Your task to perform on an android device: Open Chrome and go to settings Image 0: 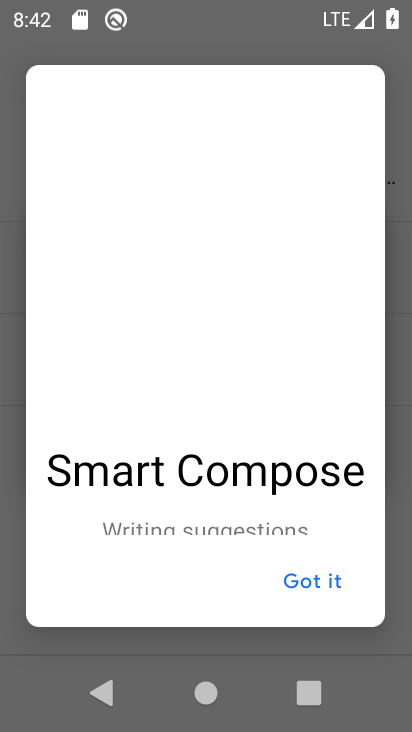
Step 0: press home button
Your task to perform on an android device: Open Chrome and go to settings Image 1: 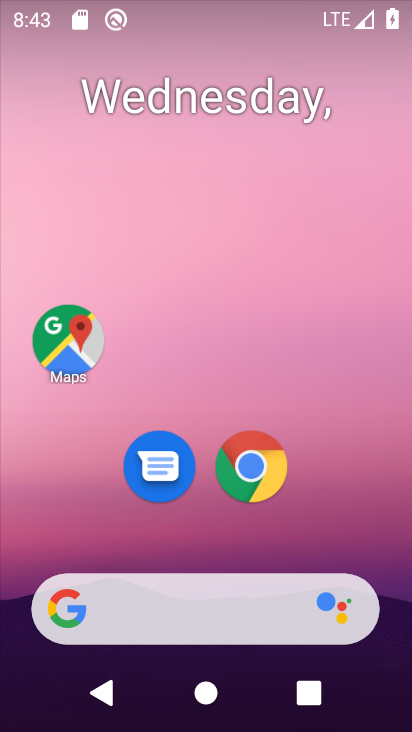
Step 1: click (249, 460)
Your task to perform on an android device: Open Chrome and go to settings Image 2: 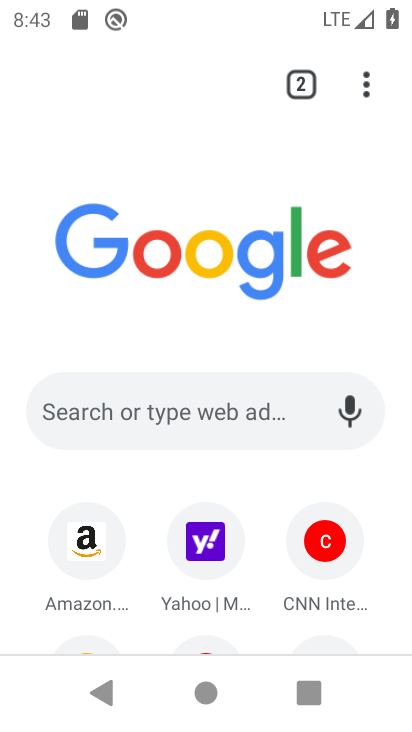
Step 2: click (368, 92)
Your task to perform on an android device: Open Chrome and go to settings Image 3: 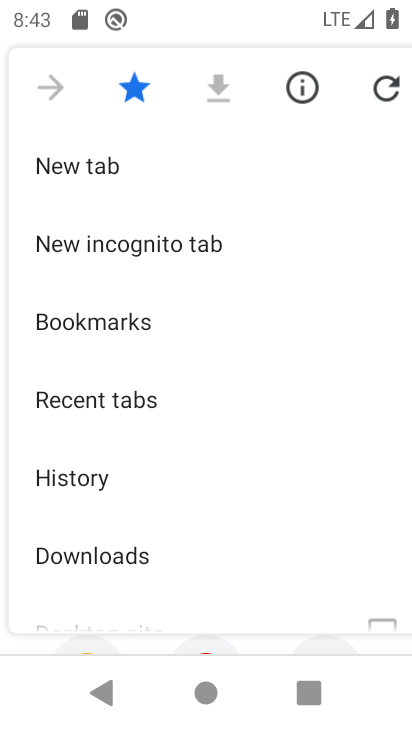
Step 3: drag from (137, 570) to (129, 238)
Your task to perform on an android device: Open Chrome and go to settings Image 4: 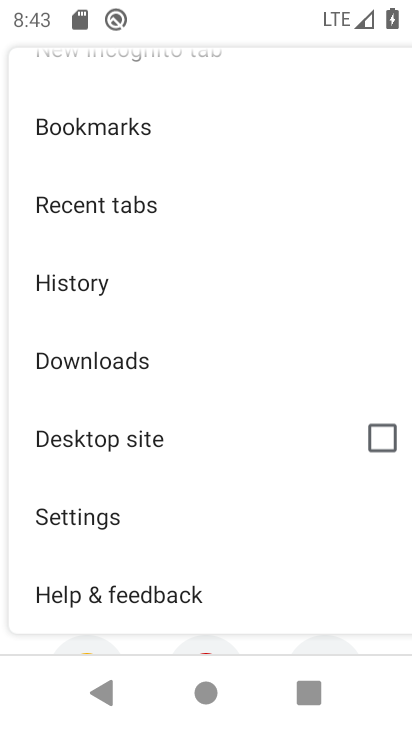
Step 4: click (63, 515)
Your task to perform on an android device: Open Chrome and go to settings Image 5: 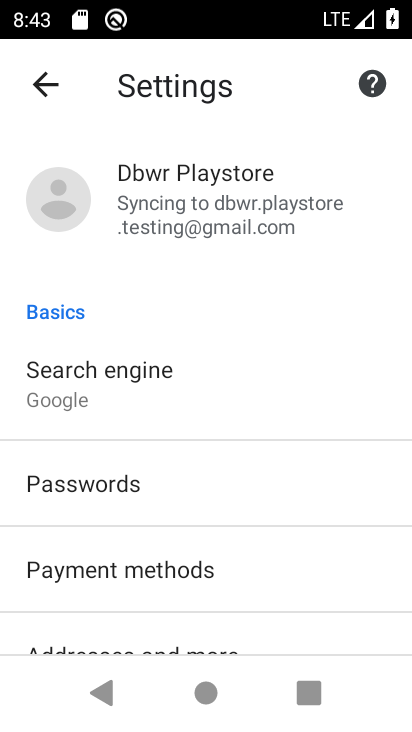
Step 5: task complete